Your task to perform on an android device: Open Chrome and go to settings Image 0: 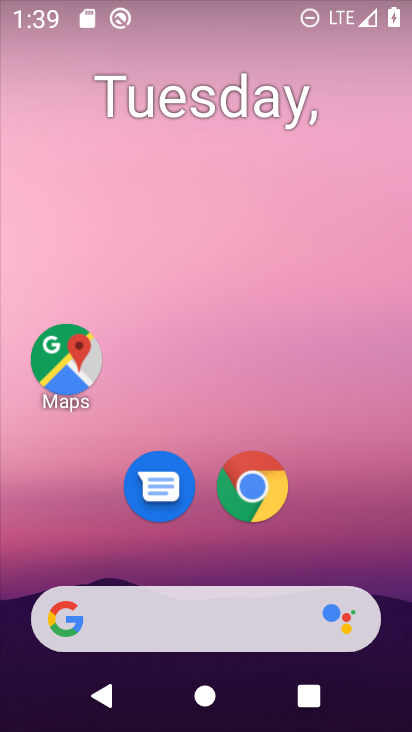
Step 0: drag from (240, 559) to (278, 173)
Your task to perform on an android device: Open Chrome and go to settings Image 1: 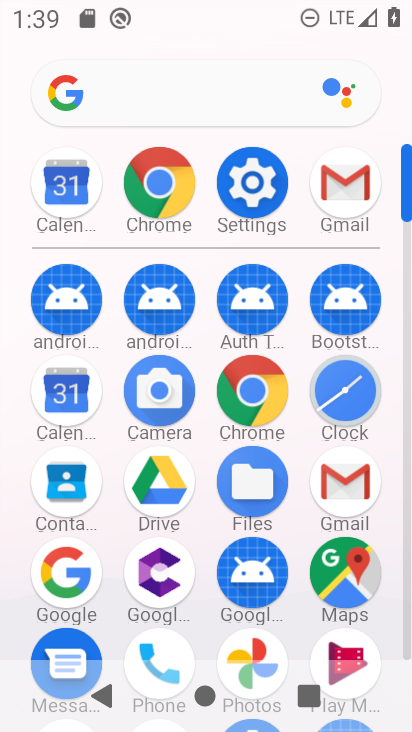
Step 1: drag from (200, 263) to (188, 42)
Your task to perform on an android device: Open Chrome and go to settings Image 2: 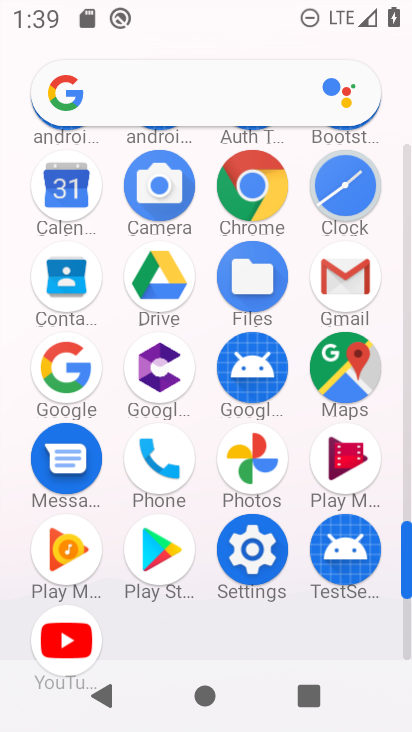
Step 2: click (257, 542)
Your task to perform on an android device: Open Chrome and go to settings Image 3: 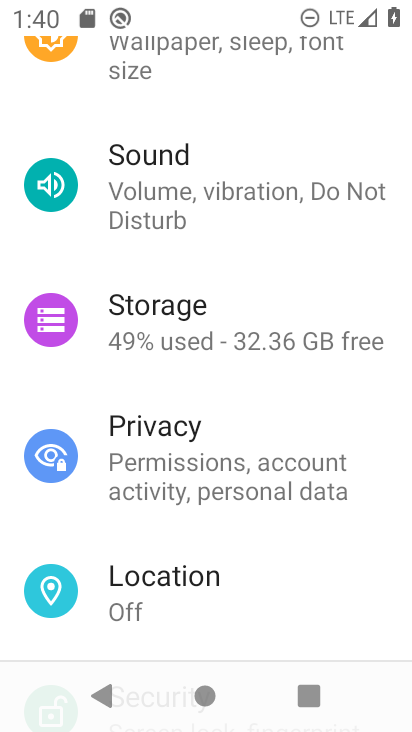
Step 3: press home button
Your task to perform on an android device: Open Chrome and go to settings Image 4: 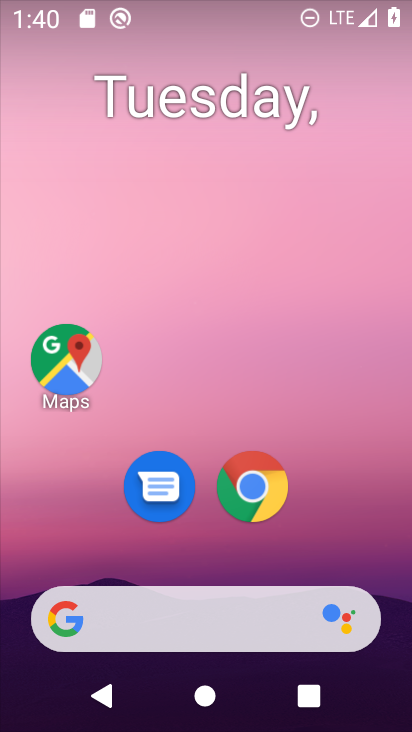
Step 4: drag from (244, 576) to (285, 128)
Your task to perform on an android device: Open Chrome and go to settings Image 5: 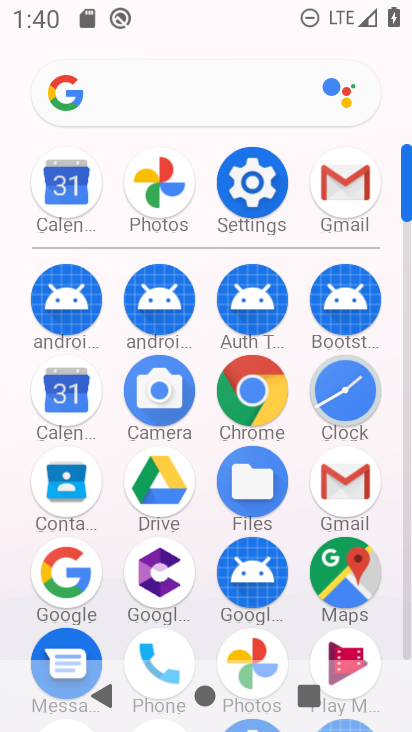
Step 5: click (267, 383)
Your task to perform on an android device: Open Chrome and go to settings Image 6: 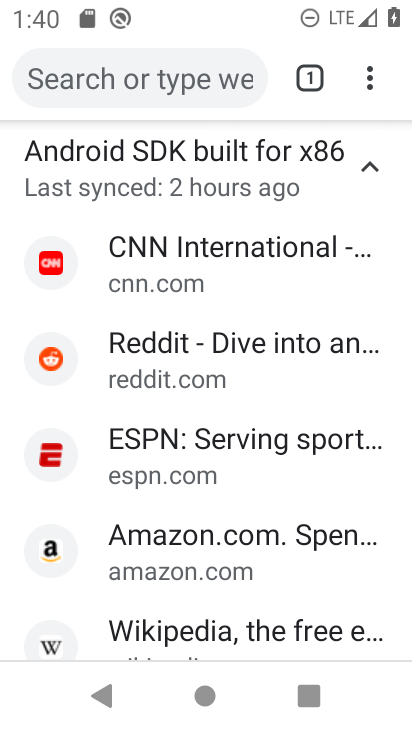
Step 6: click (363, 89)
Your task to perform on an android device: Open Chrome and go to settings Image 7: 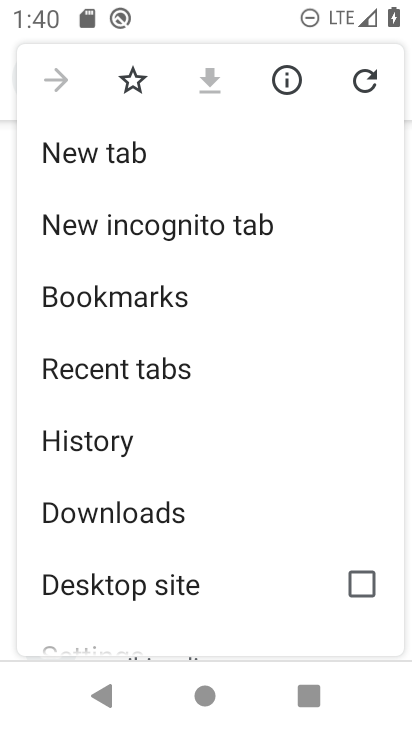
Step 7: drag from (183, 520) to (200, 184)
Your task to perform on an android device: Open Chrome and go to settings Image 8: 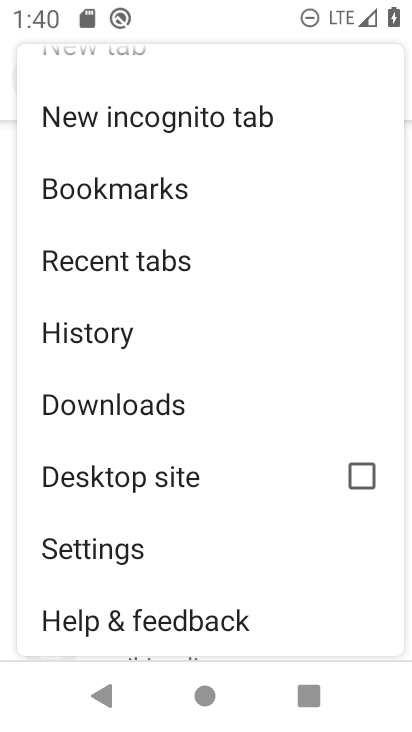
Step 8: click (138, 557)
Your task to perform on an android device: Open Chrome and go to settings Image 9: 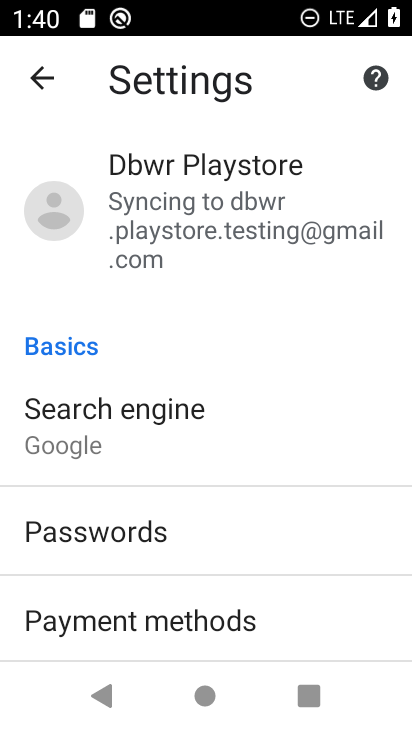
Step 9: task complete